Your task to perform on an android device: check google app version Image 0: 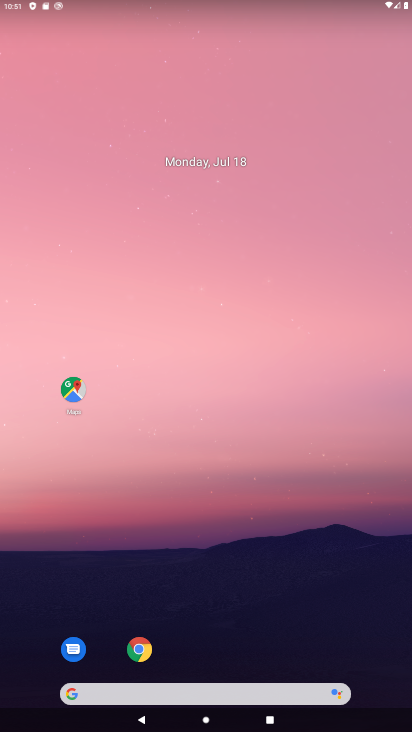
Step 0: click (143, 654)
Your task to perform on an android device: check google app version Image 1: 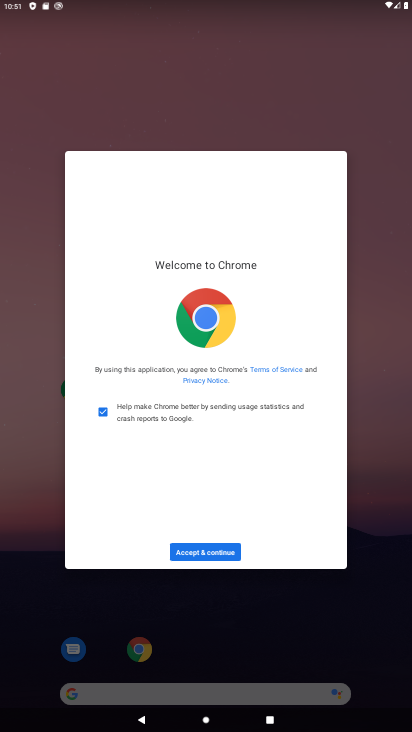
Step 1: click (212, 556)
Your task to perform on an android device: check google app version Image 2: 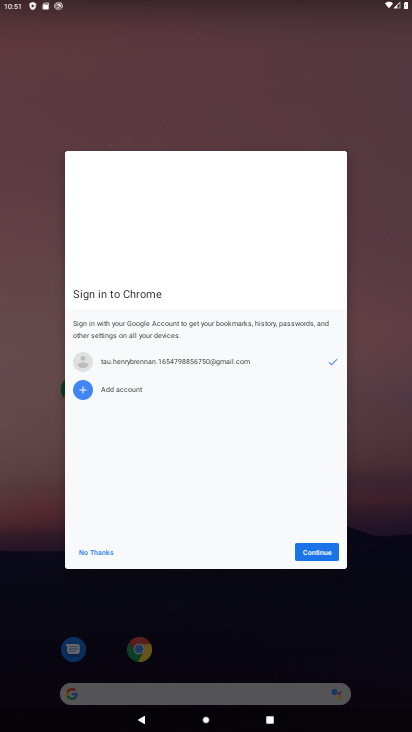
Step 2: click (312, 557)
Your task to perform on an android device: check google app version Image 3: 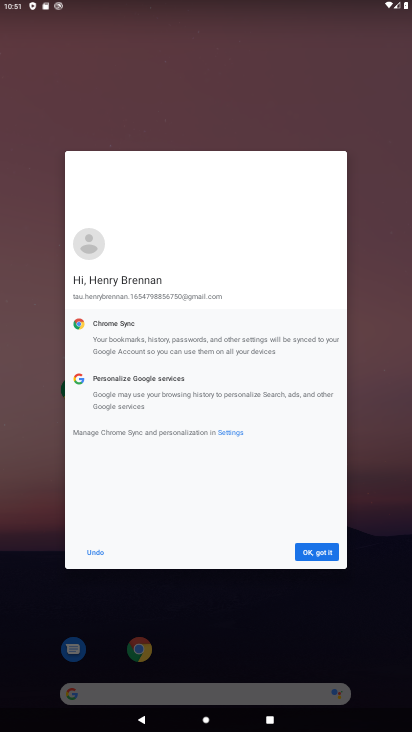
Step 3: click (312, 557)
Your task to perform on an android device: check google app version Image 4: 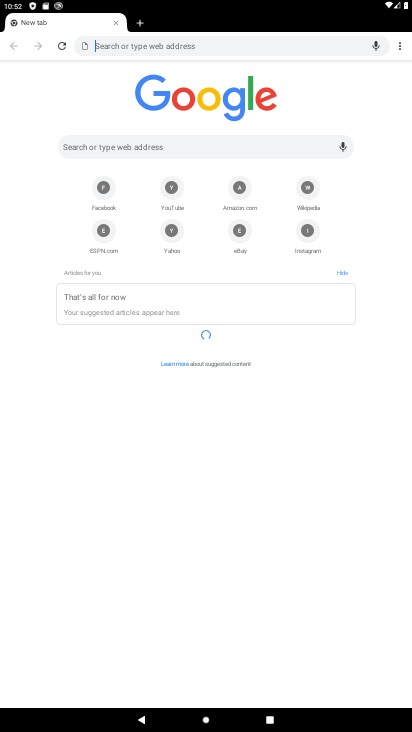
Step 4: click (401, 43)
Your task to perform on an android device: check google app version Image 5: 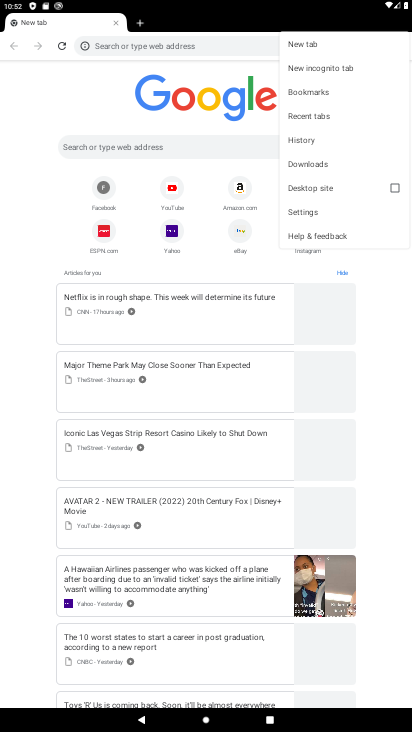
Step 5: click (344, 228)
Your task to perform on an android device: check google app version Image 6: 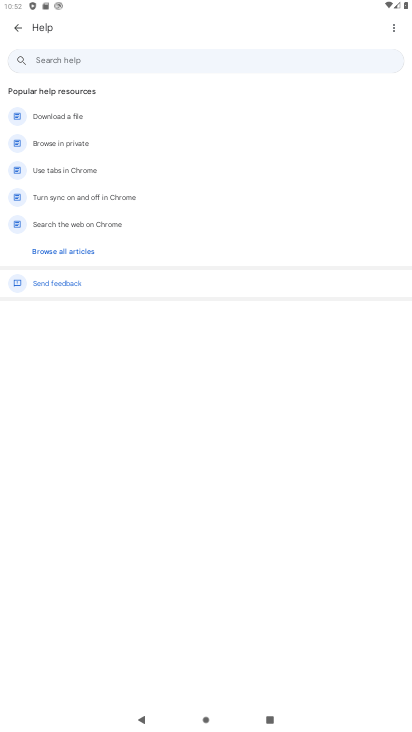
Step 6: click (396, 24)
Your task to perform on an android device: check google app version Image 7: 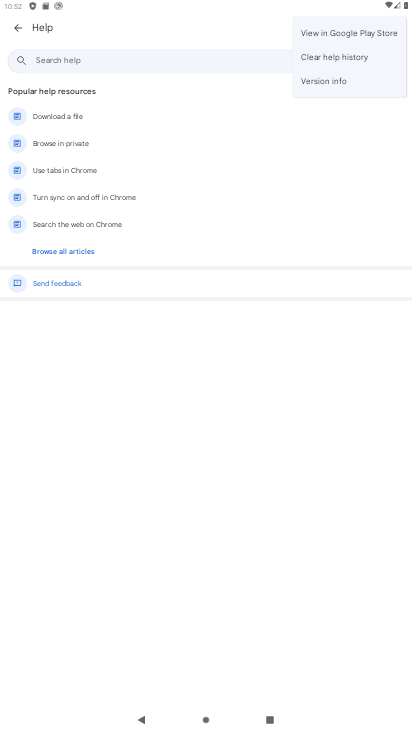
Step 7: click (372, 79)
Your task to perform on an android device: check google app version Image 8: 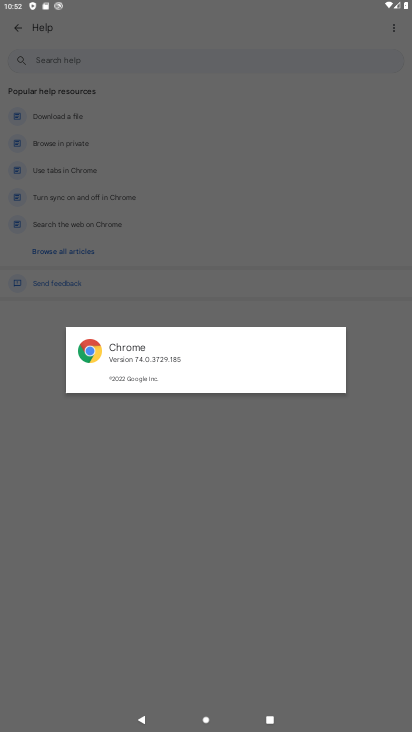
Step 8: task complete